Your task to perform on an android device: turn on bluetooth scan Image 0: 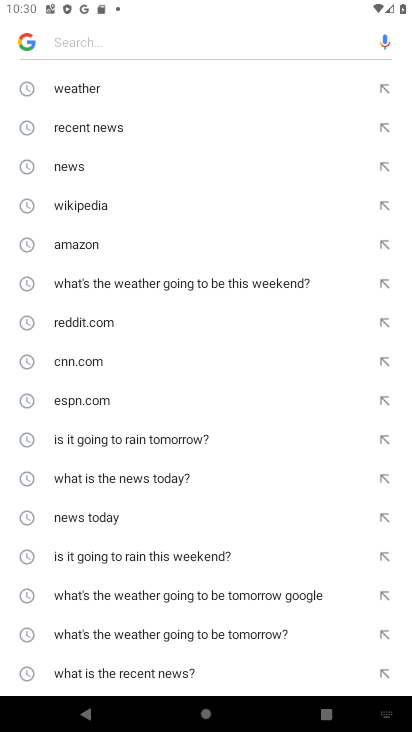
Step 0: press home button
Your task to perform on an android device: turn on bluetooth scan Image 1: 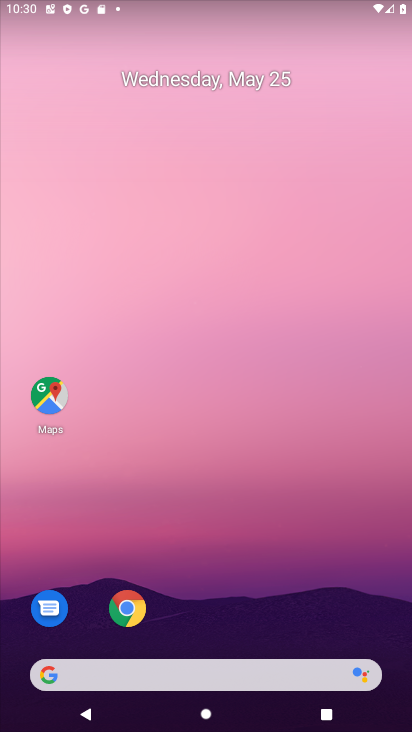
Step 1: drag from (244, 643) to (241, 7)
Your task to perform on an android device: turn on bluetooth scan Image 2: 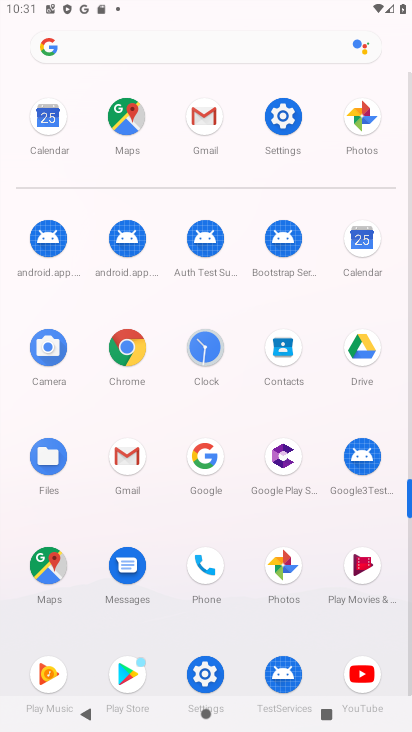
Step 2: click (287, 123)
Your task to perform on an android device: turn on bluetooth scan Image 3: 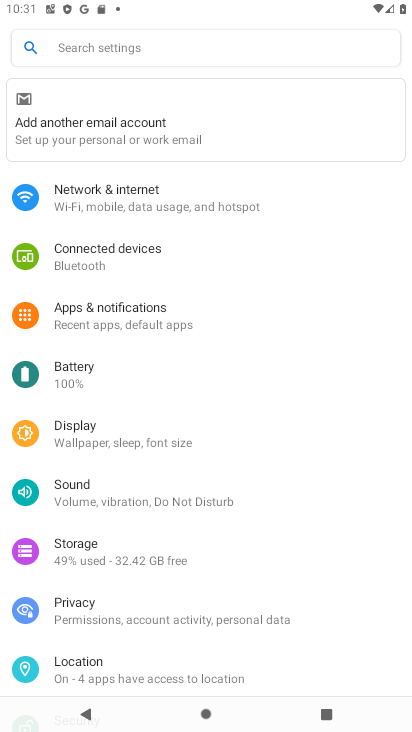
Step 3: click (81, 663)
Your task to perform on an android device: turn on bluetooth scan Image 4: 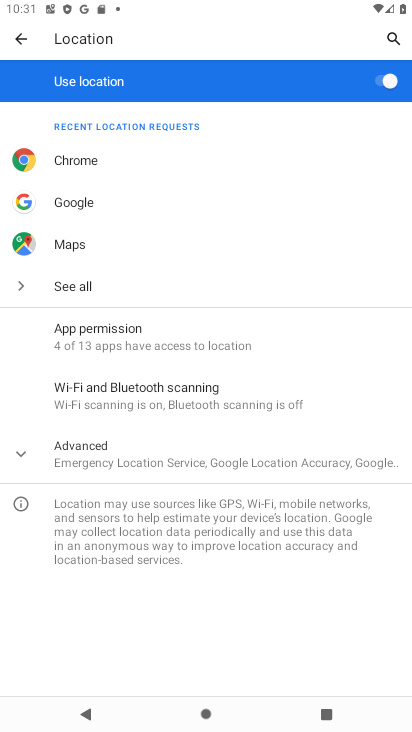
Step 4: click (95, 403)
Your task to perform on an android device: turn on bluetooth scan Image 5: 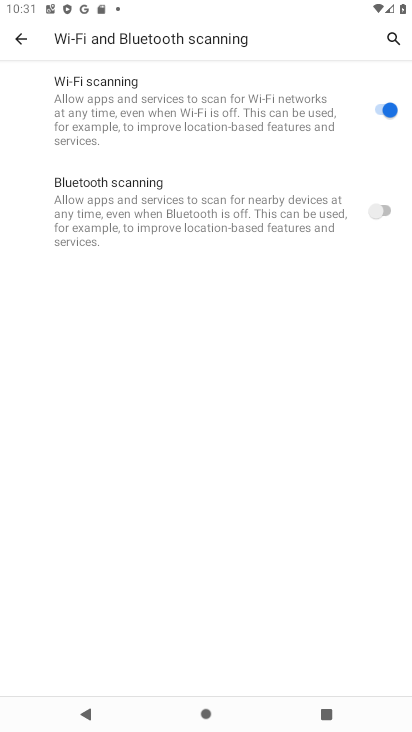
Step 5: click (372, 223)
Your task to perform on an android device: turn on bluetooth scan Image 6: 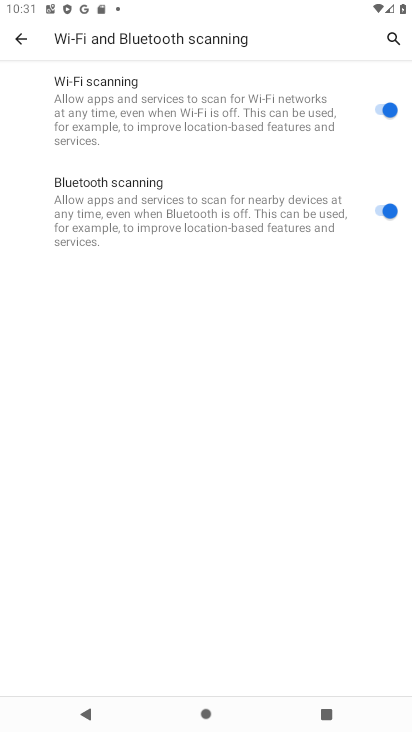
Step 6: task complete